Your task to perform on an android device: See recent photos Image 0: 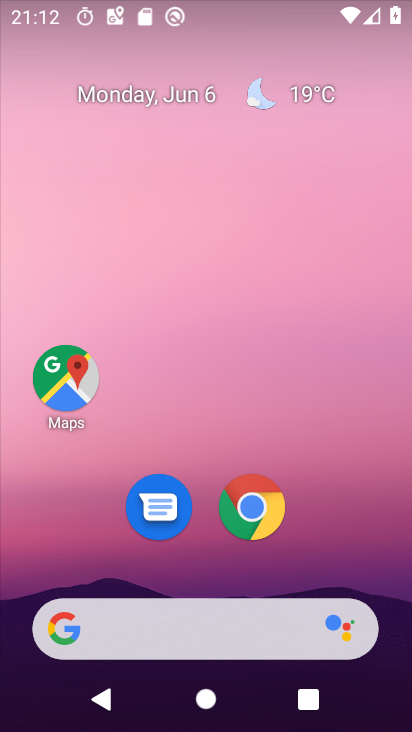
Step 0: drag from (345, 554) to (368, 44)
Your task to perform on an android device: See recent photos Image 1: 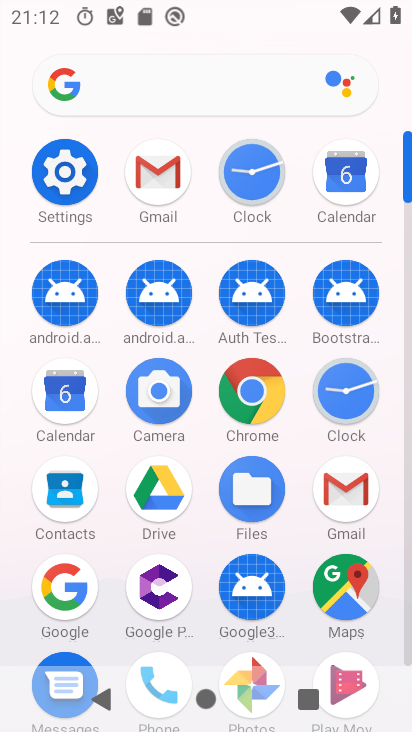
Step 1: click (406, 606)
Your task to perform on an android device: See recent photos Image 2: 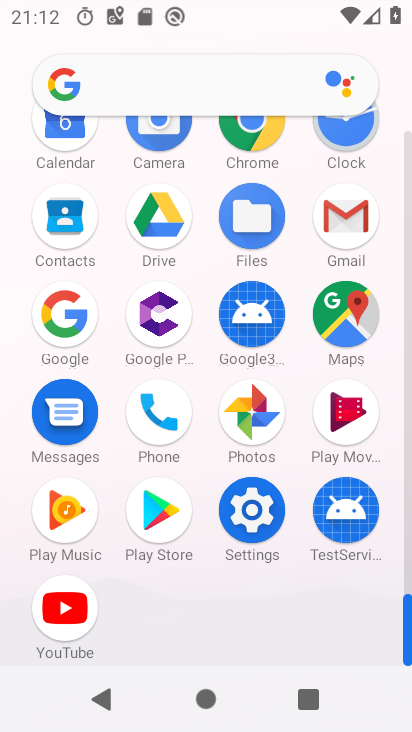
Step 2: click (247, 419)
Your task to perform on an android device: See recent photos Image 3: 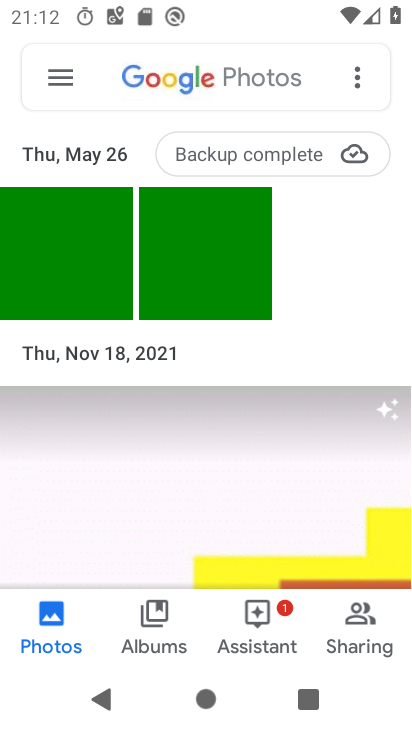
Step 3: task complete